Your task to perform on an android device: Go to Android settings Image 0: 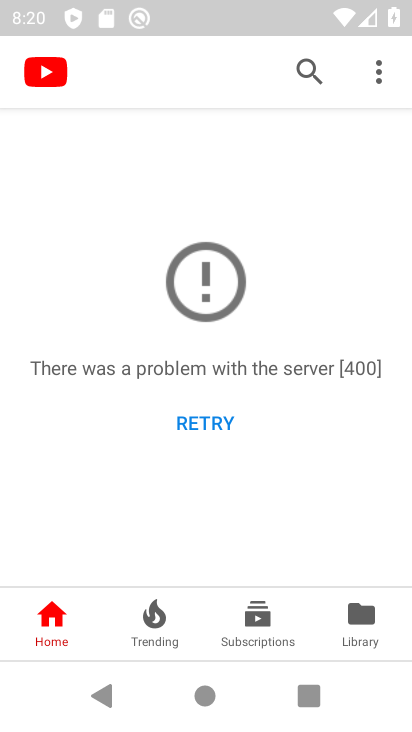
Step 0: press home button
Your task to perform on an android device: Go to Android settings Image 1: 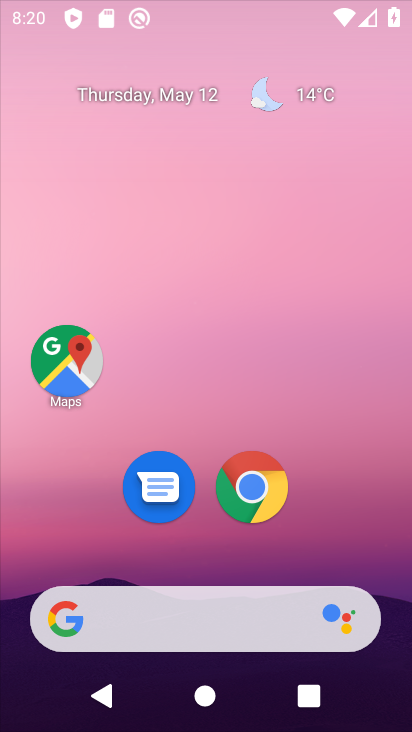
Step 1: drag from (19, 640) to (304, 140)
Your task to perform on an android device: Go to Android settings Image 2: 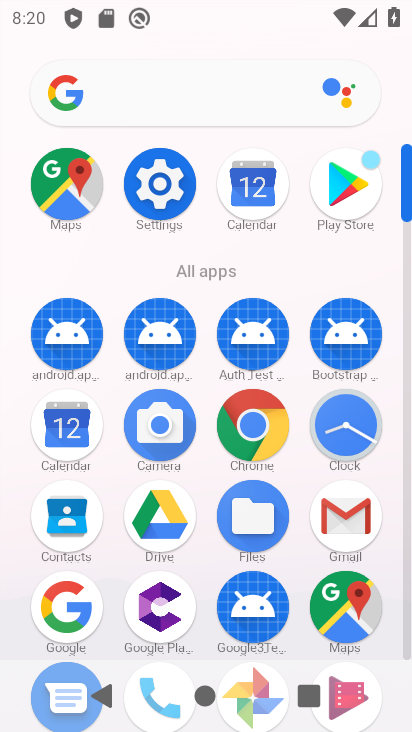
Step 2: click (157, 177)
Your task to perform on an android device: Go to Android settings Image 3: 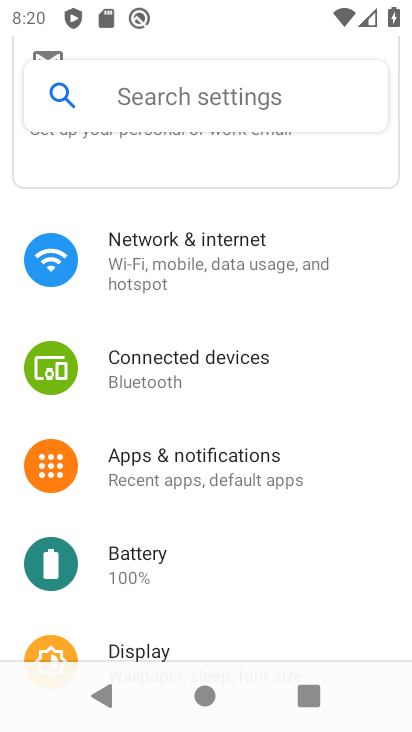
Step 3: drag from (179, 599) to (333, 190)
Your task to perform on an android device: Go to Android settings Image 4: 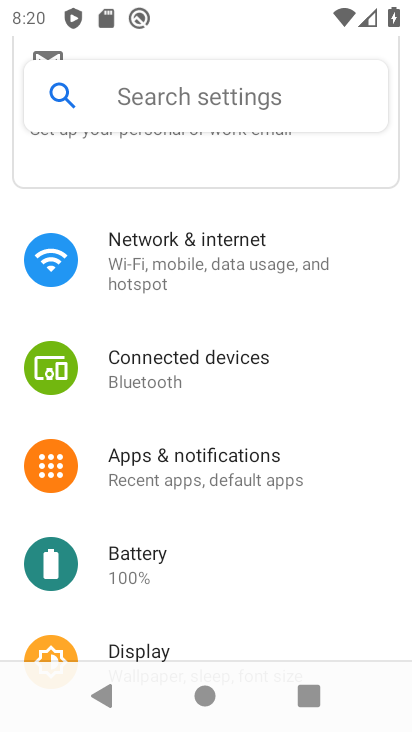
Step 4: drag from (18, 612) to (265, 175)
Your task to perform on an android device: Go to Android settings Image 5: 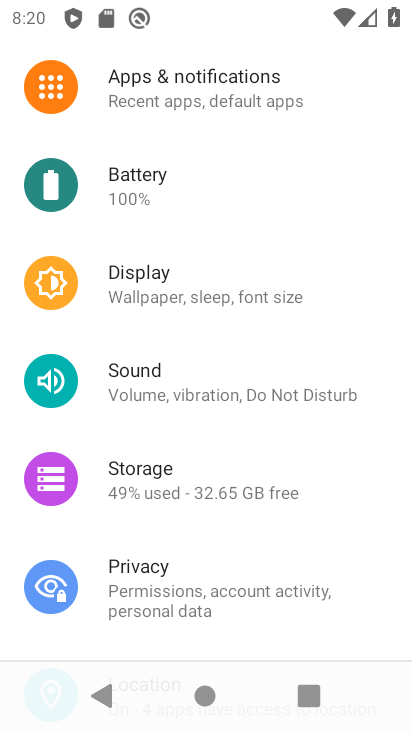
Step 5: drag from (5, 610) to (261, 210)
Your task to perform on an android device: Go to Android settings Image 6: 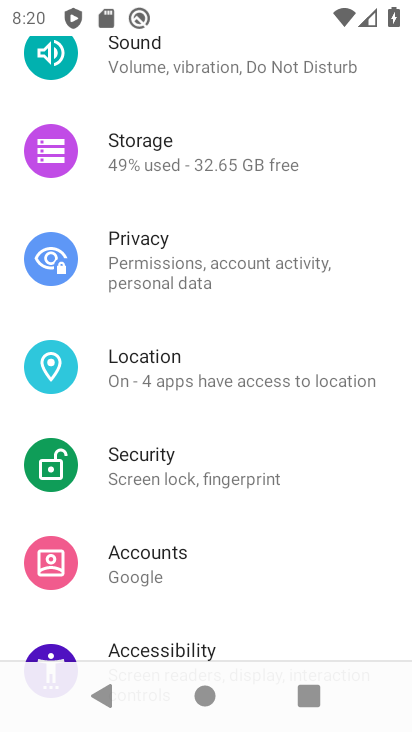
Step 6: drag from (11, 569) to (274, 173)
Your task to perform on an android device: Go to Android settings Image 7: 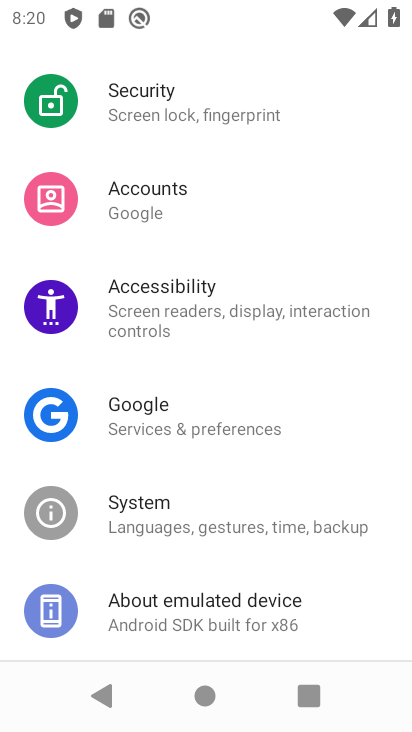
Step 7: drag from (19, 636) to (266, 225)
Your task to perform on an android device: Go to Android settings Image 8: 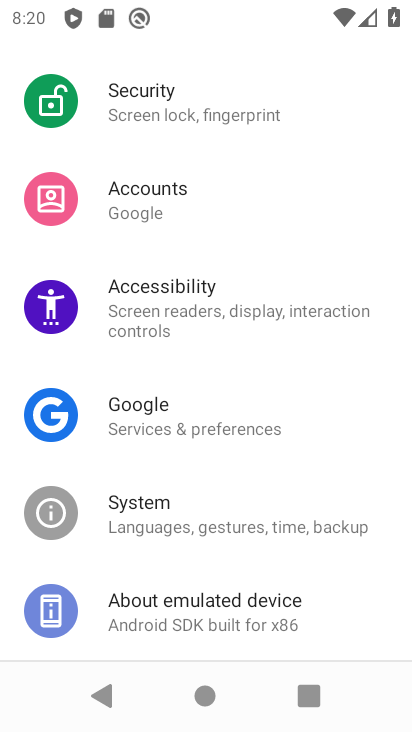
Step 8: click (155, 618)
Your task to perform on an android device: Go to Android settings Image 9: 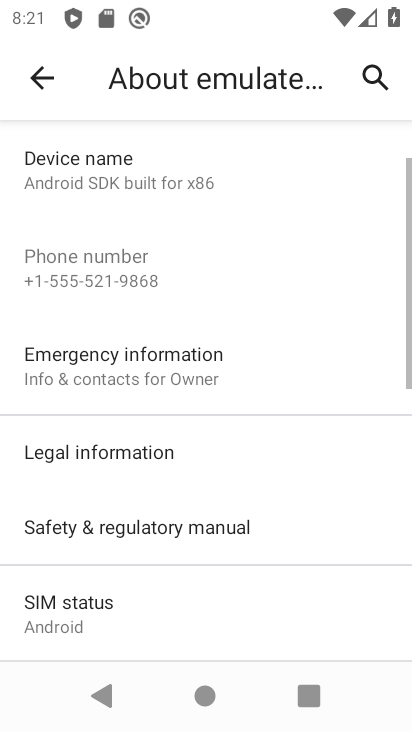
Step 9: task complete